Your task to perform on an android device: Go to display settings Image 0: 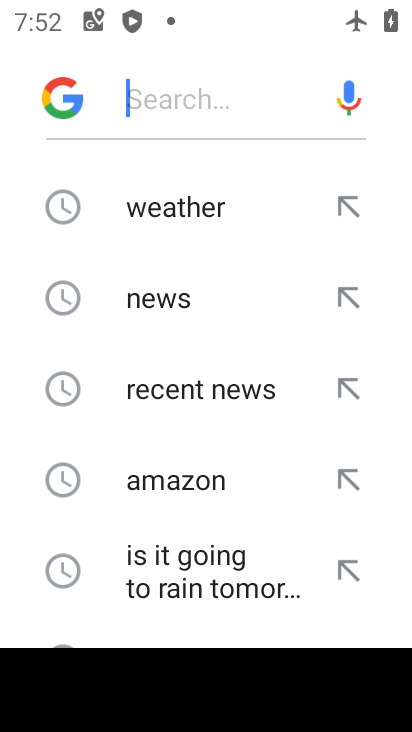
Step 0: press home button
Your task to perform on an android device: Go to display settings Image 1: 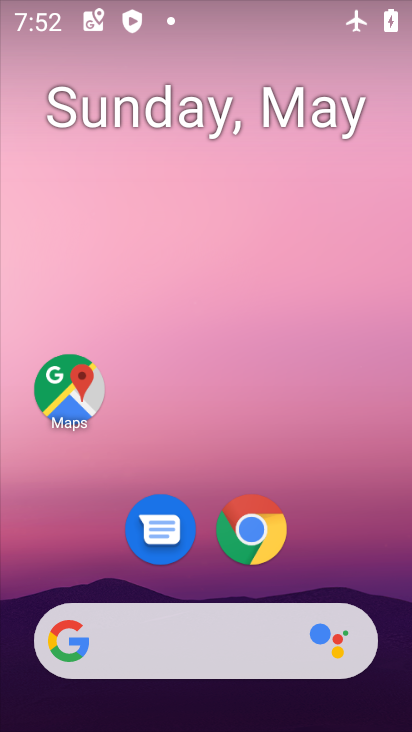
Step 1: drag from (386, 613) to (404, 22)
Your task to perform on an android device: Go to display settings Image 2: 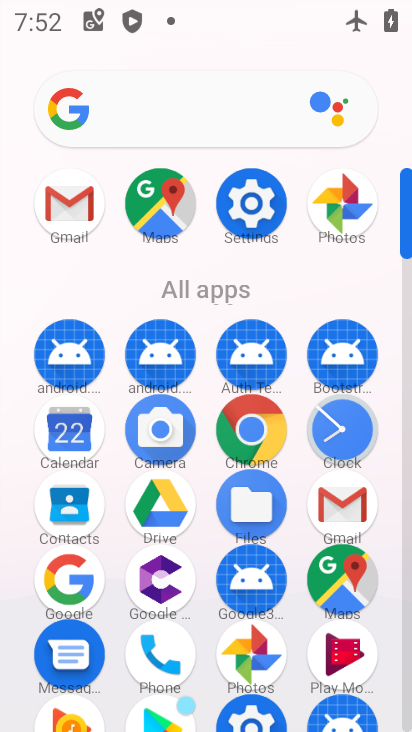
Step 2: click (249, 207)
Your task to perform on an android device: Go to display settings Image 3: 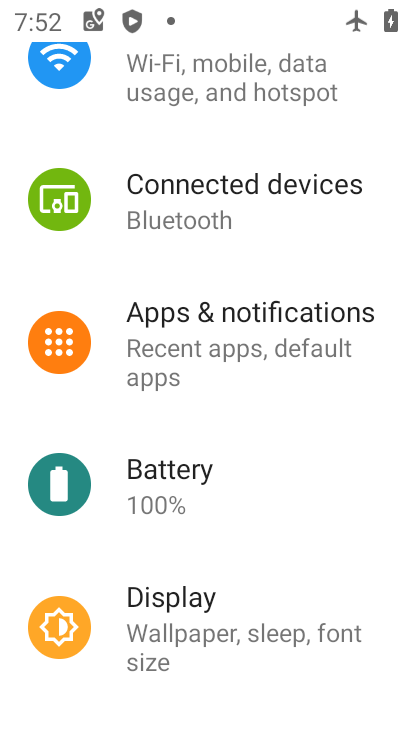
Step 3: click (175, 625)
Your task to perform on an android device: Go to display settings Image 4: 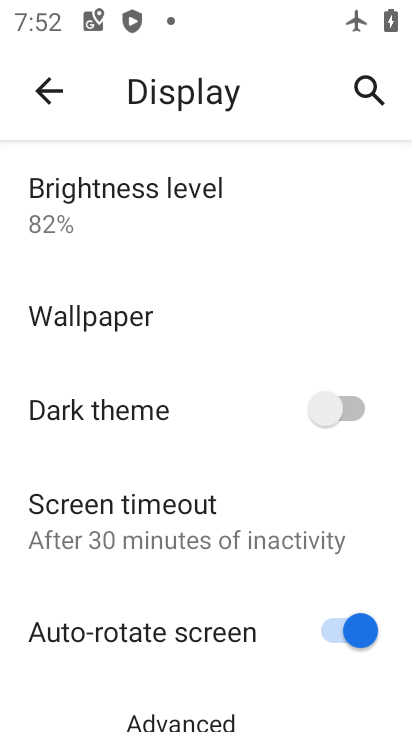
Step 4: task complete